Your task to perform on an android device: open chrome privacy settings Image 0: 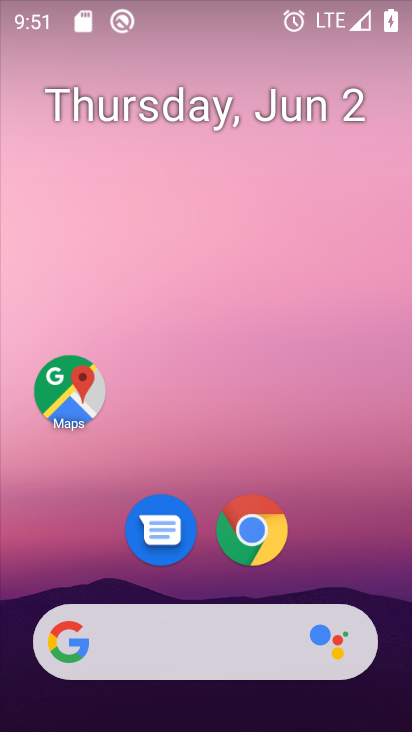
Step 0: click (250, 536)
Your task to perform on an android device: open chrome privacy settings Image 1: 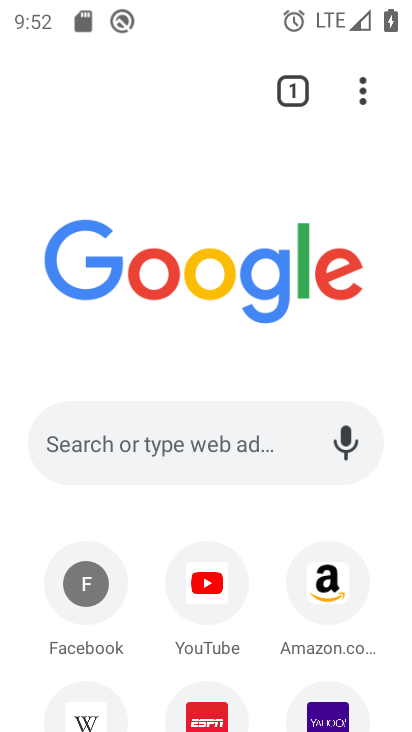
Step 1: click (366, 91)
Your task to perform on an android device: open chrome privacy settings Image 2: 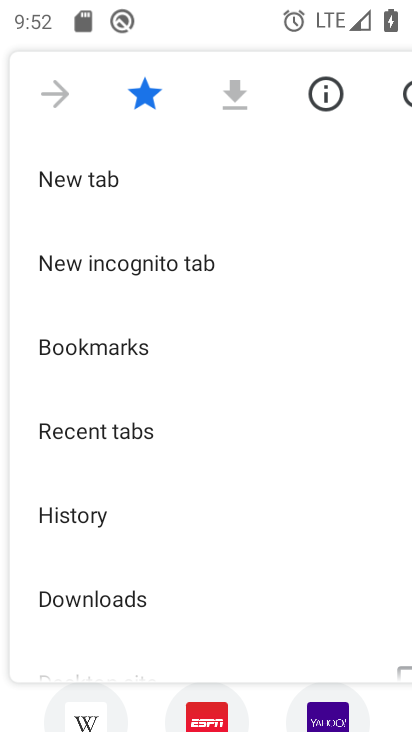
Step 2: drag from (161, 595) to (161, 238)
Your task to perform on an android device: open chrome privacy settings Image 3: 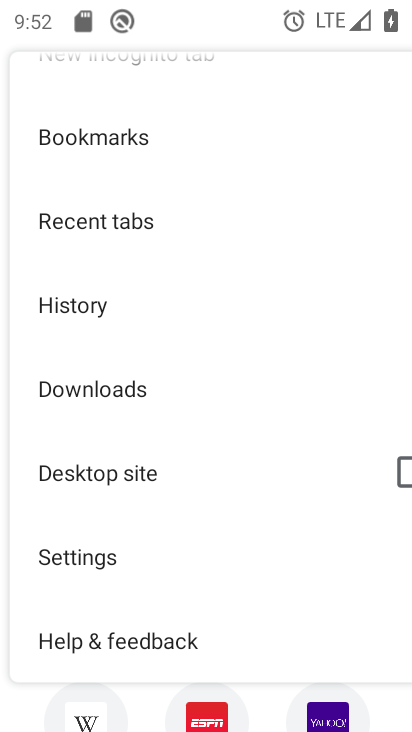
Step 3: click (88, 559)
Your task to perform on an android device: open chrome privacy settings Image 4: 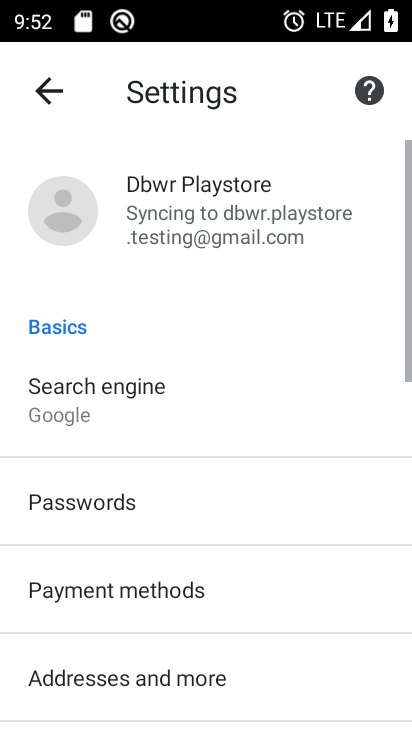
Step 4: drag from (141, 657) to (140, 329)
Your task to perform on an android device: open chrome privacy settings Image 5: 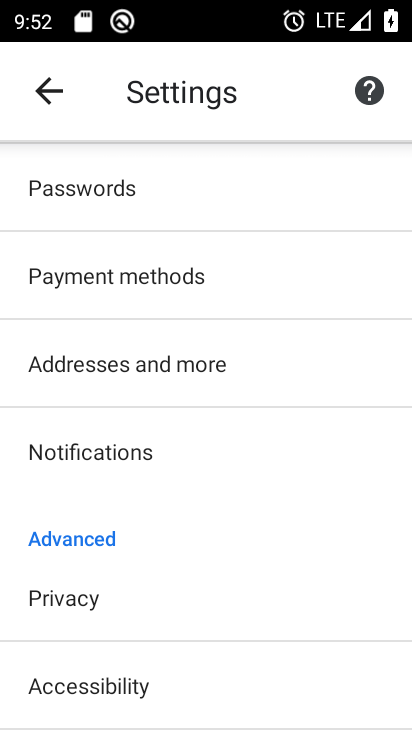
Step 5: click (80, 603)
Your task to perform on an android device: open chrome privacy settings Image 6: 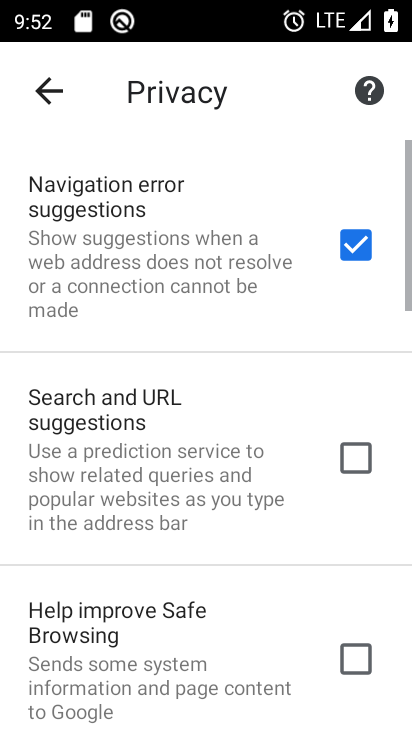
Step 6: task complete